Your task to perform on an android device: turn on improve location accuracy Image 0: 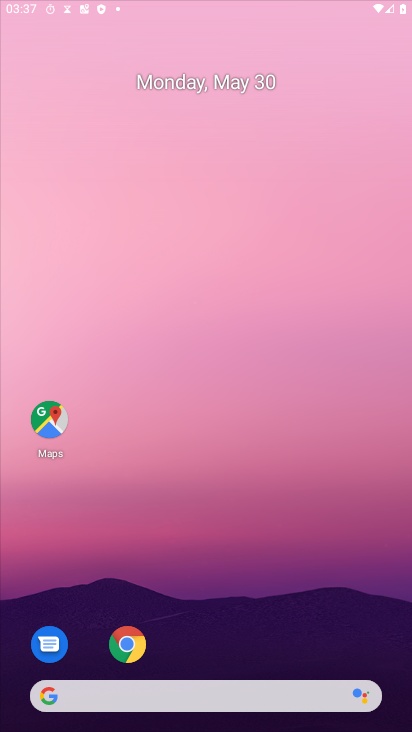
Step 0: press home button
Your task to perform on an android device: turn on improve location accuracy Image 1: 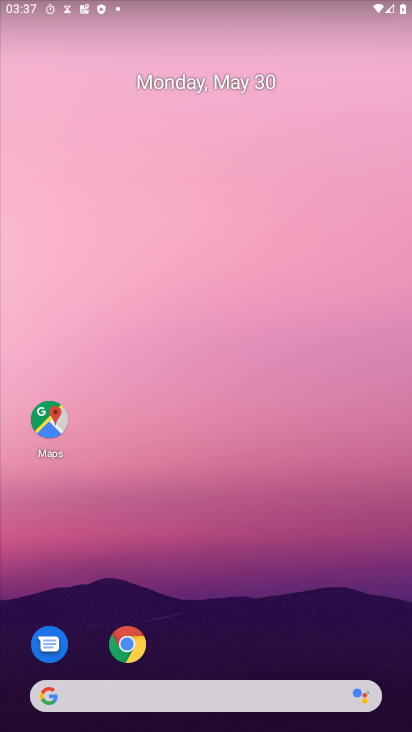
Step 1: drag from (217, 629) to (231, 255)
Your task to perform on an android device: turn on improve location accuracy Image 2: 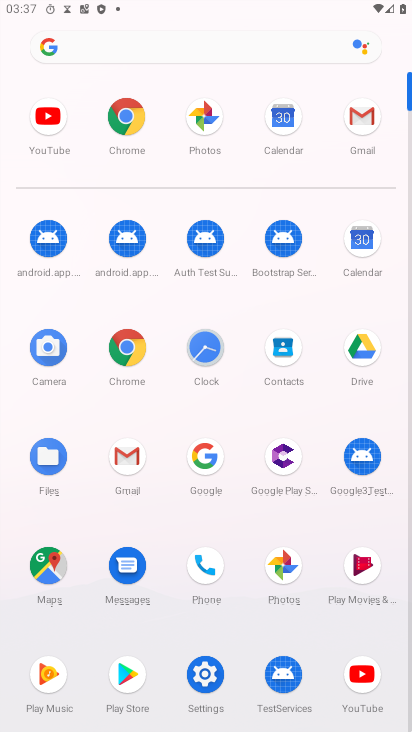
Step 2: click (207, 676)
Your task to perform on an android device: turn on improve location accuracy Image 3: 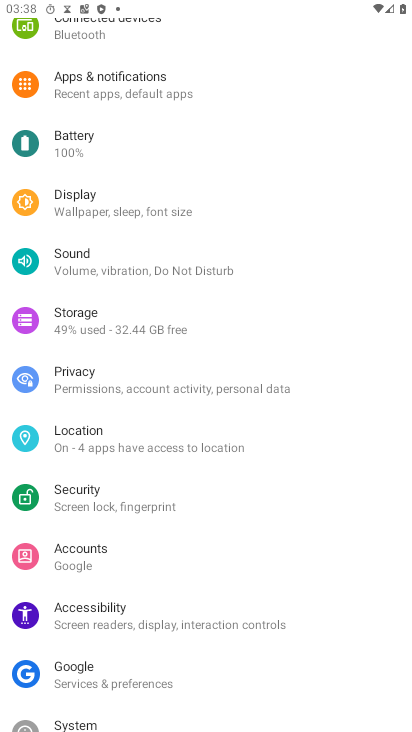
Step 3: click (108, 435)
Your task to perform on an android device: turn on improve location accuracy Image 4: 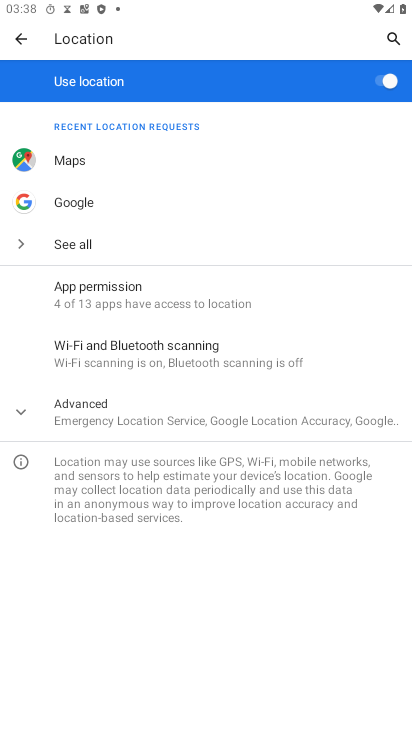
Step 4: click (93, 416)
Your task to perform on an android device: turn on improve location accuracy Image 5: 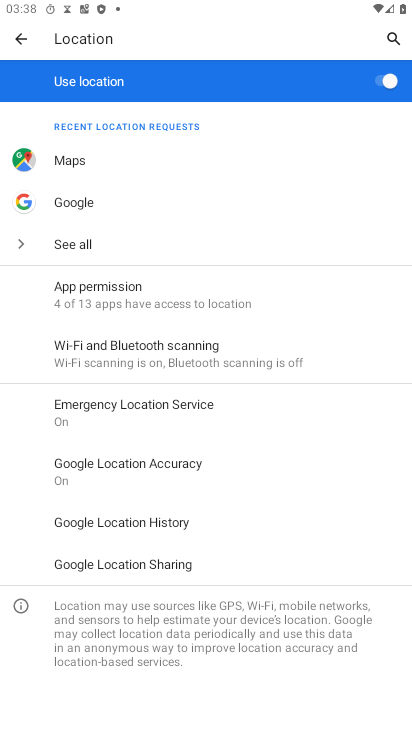
Step 5: click (116, 471)
Your task to perform on an android device: turn on improve location accuracy Image 6: 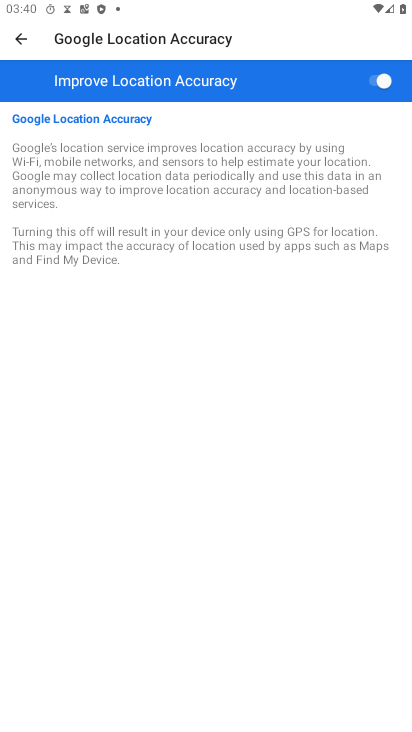
Step 6: task complete